Your task to perform on an android device: Go to Android settings Image 0: 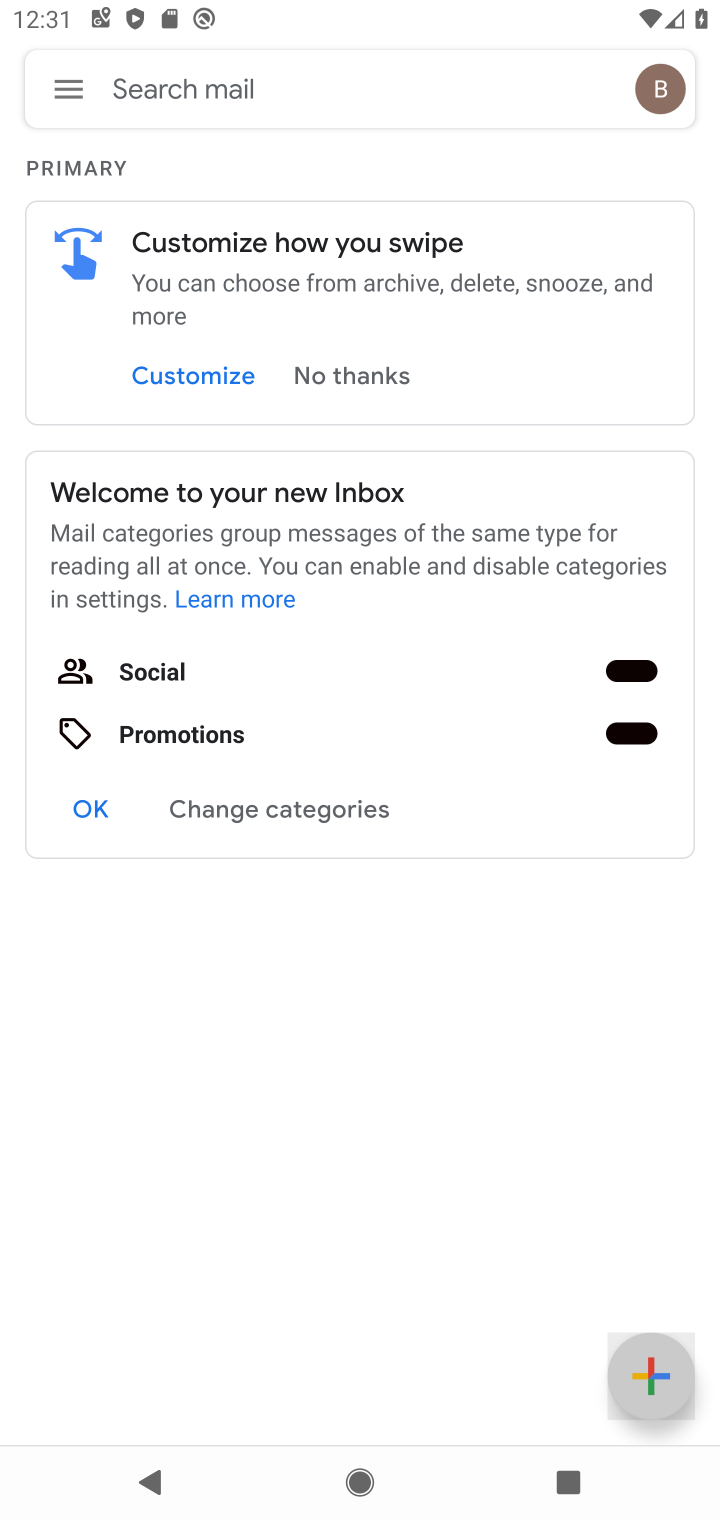
Step 0: press back button
Your task to perform on an android device: Go to Android settings Image 1: 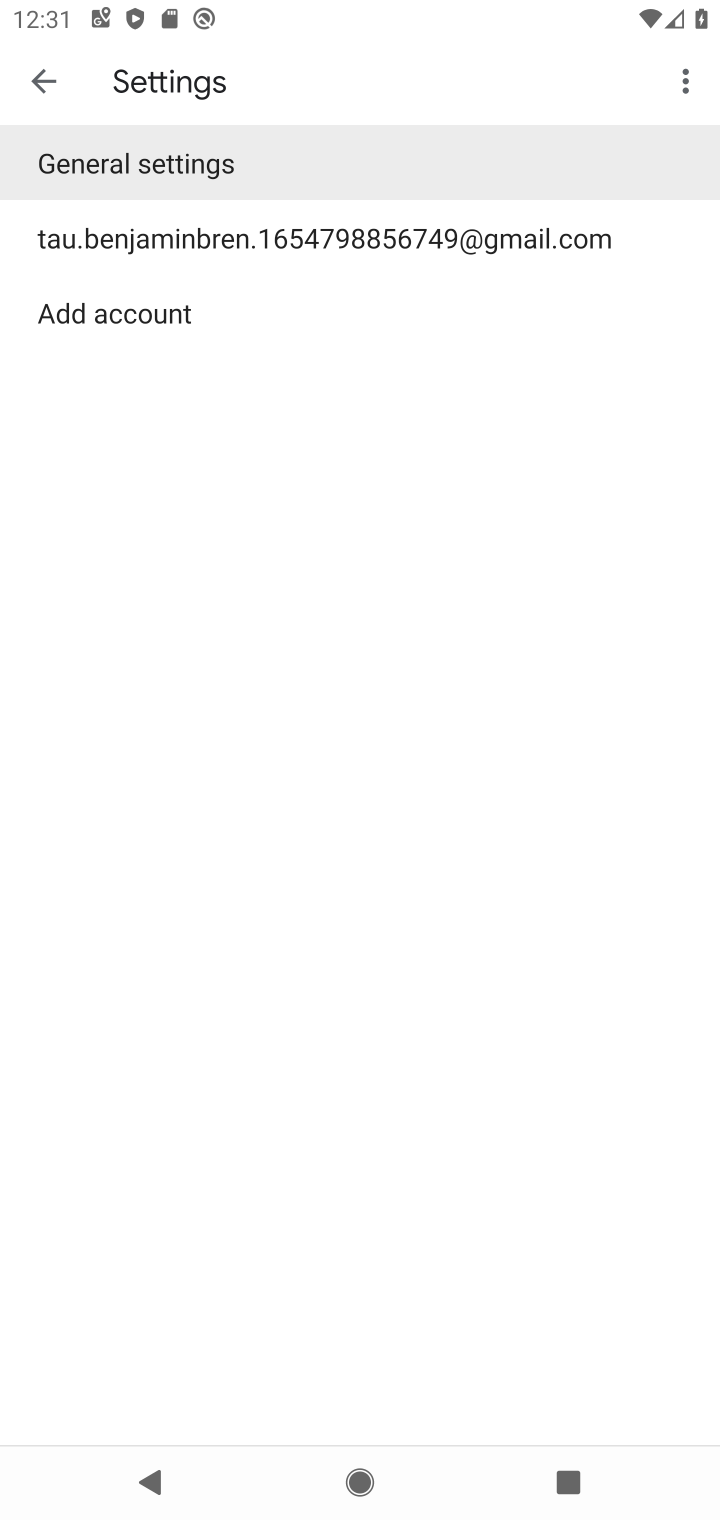
Step 1: press back button
Your task to perform on an android device: Go to Android settings Image 2: 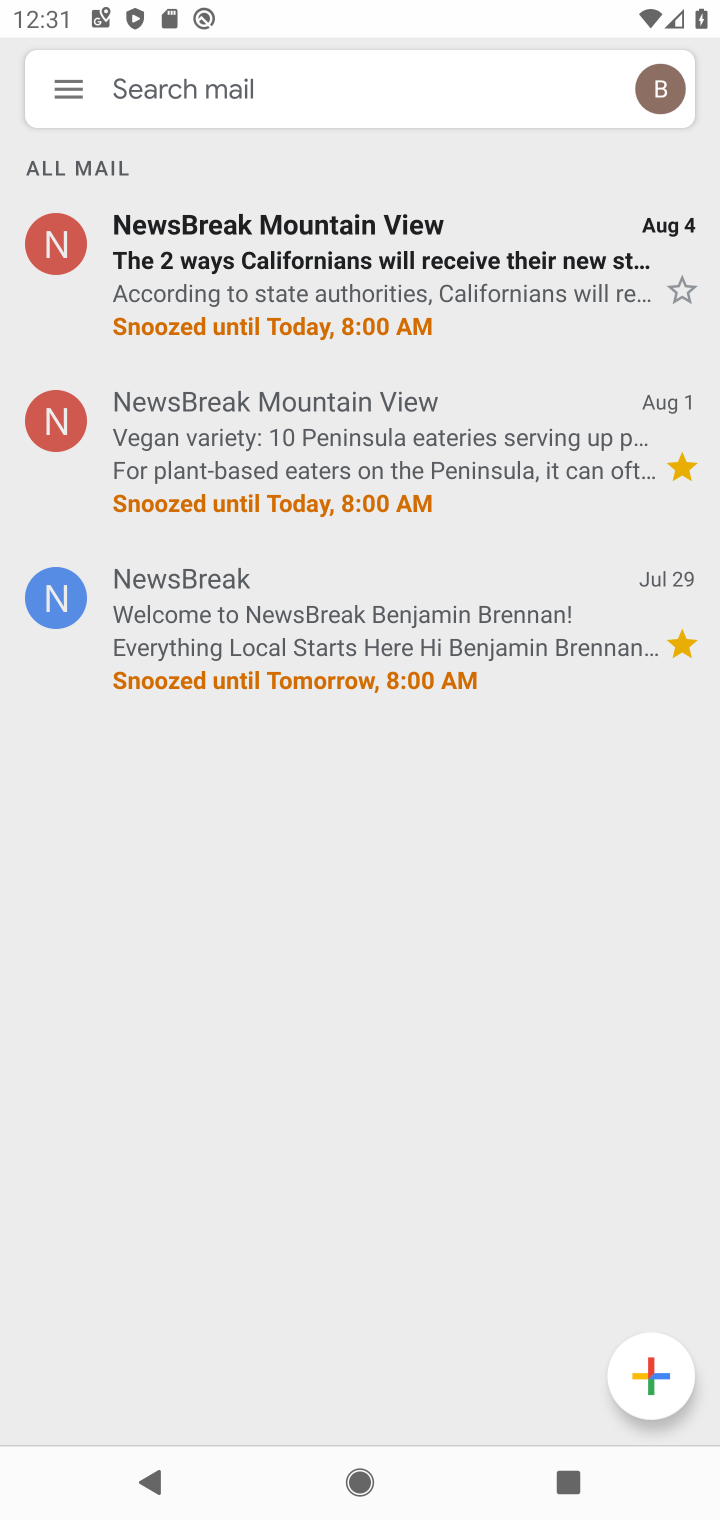
Step 2: press back button
Your task to perform on an android device: Go to Android settings Image 3: 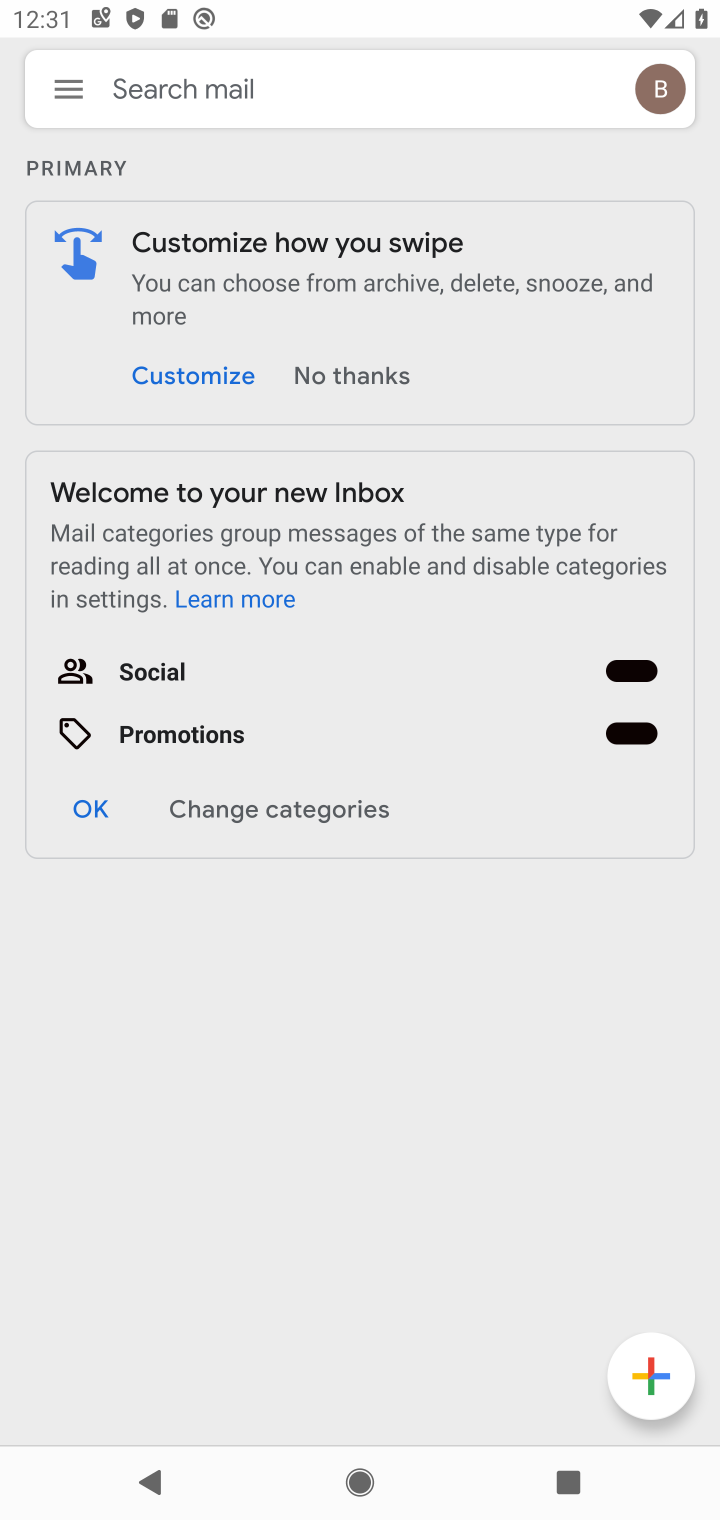
Step 3: press back button
Your task to perform on an android device: Go to Android settings Image 4: 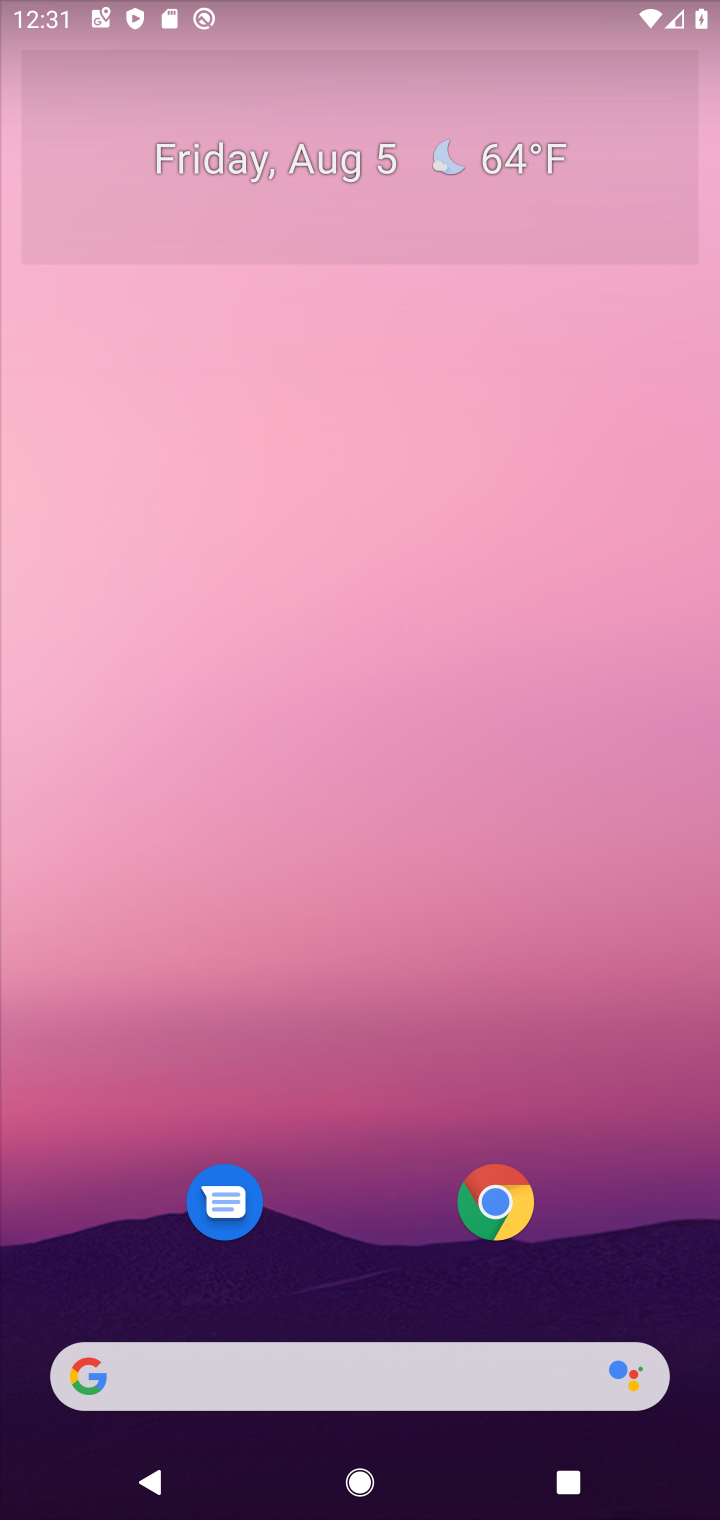
Step 4: drag from (378, 1252) to (505, 2)
Your task to perform on an android device: Go to Android settings Image 5: 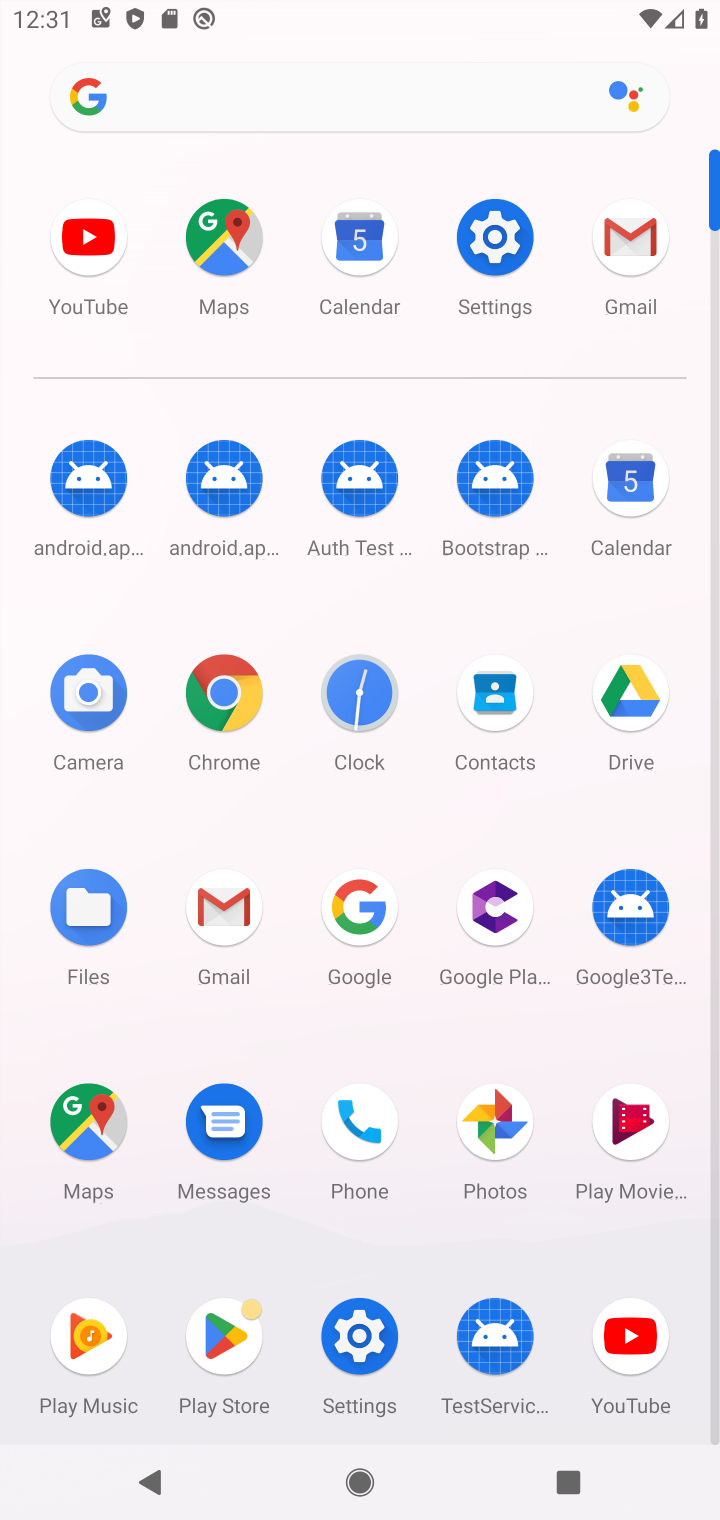
Step 5: click (502, 237)
Your task to perform on an android device: Go to Android settings Image 6: 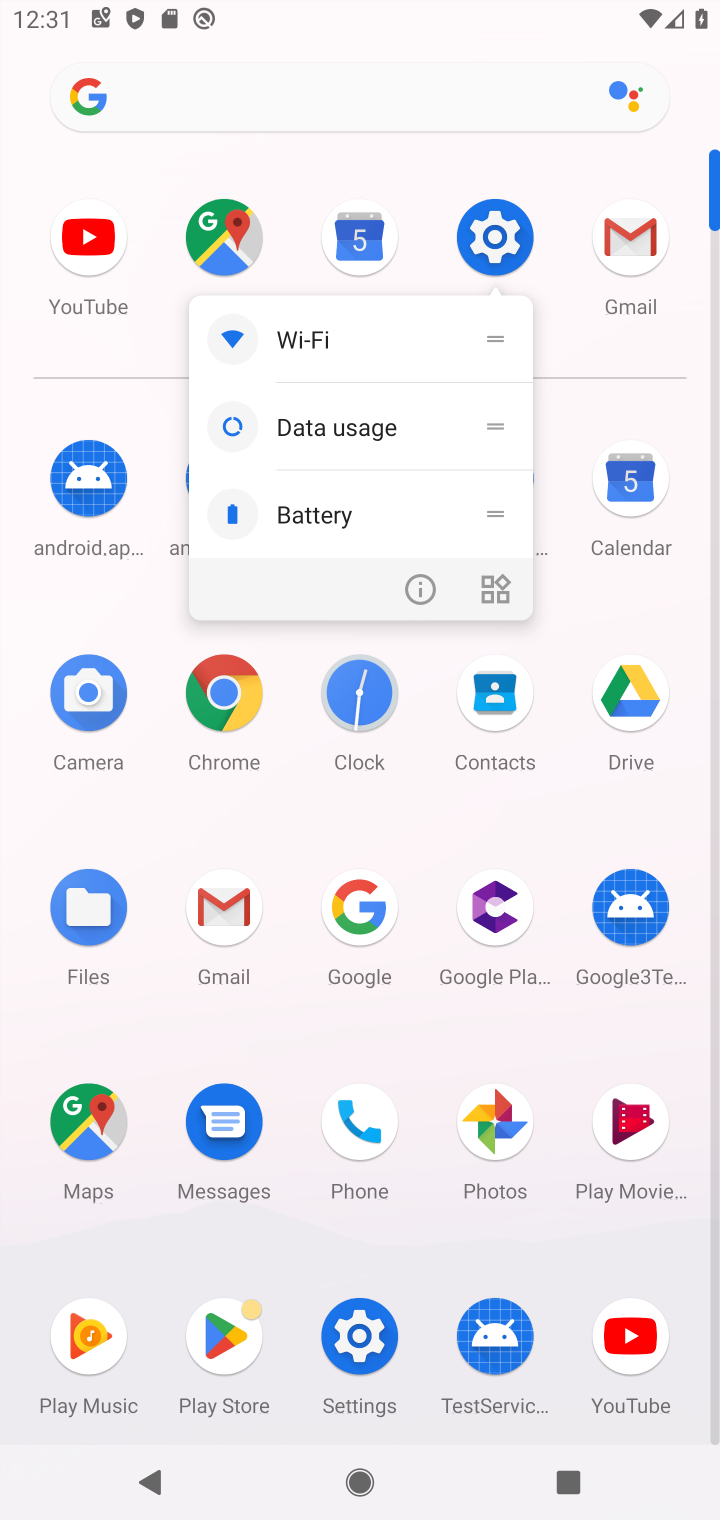
Step 6: click (502, 237)
Your task to perform on an android device: Go to Android settings Image 7: 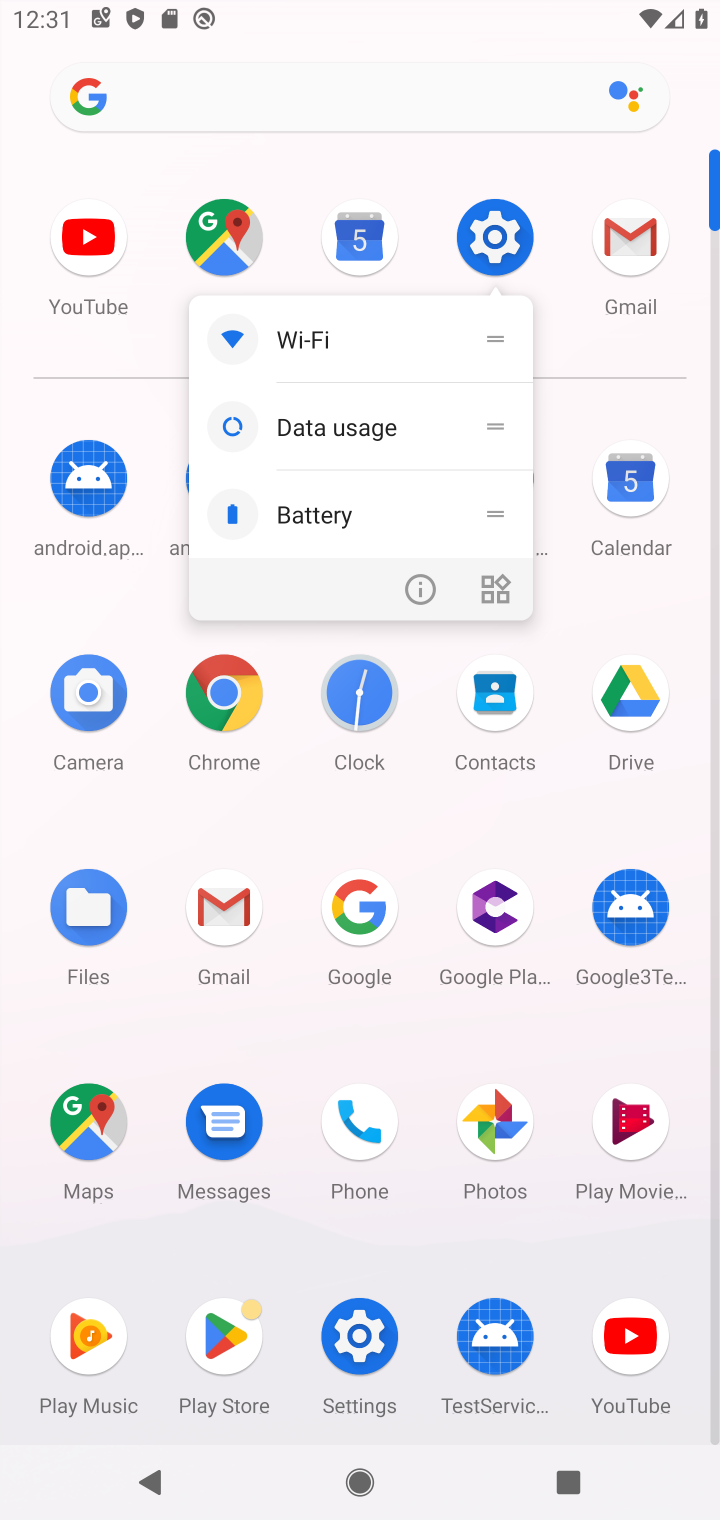
Step 7: click (502, 237)
Your task to perform on an android device: Go to Android settings Image 8: 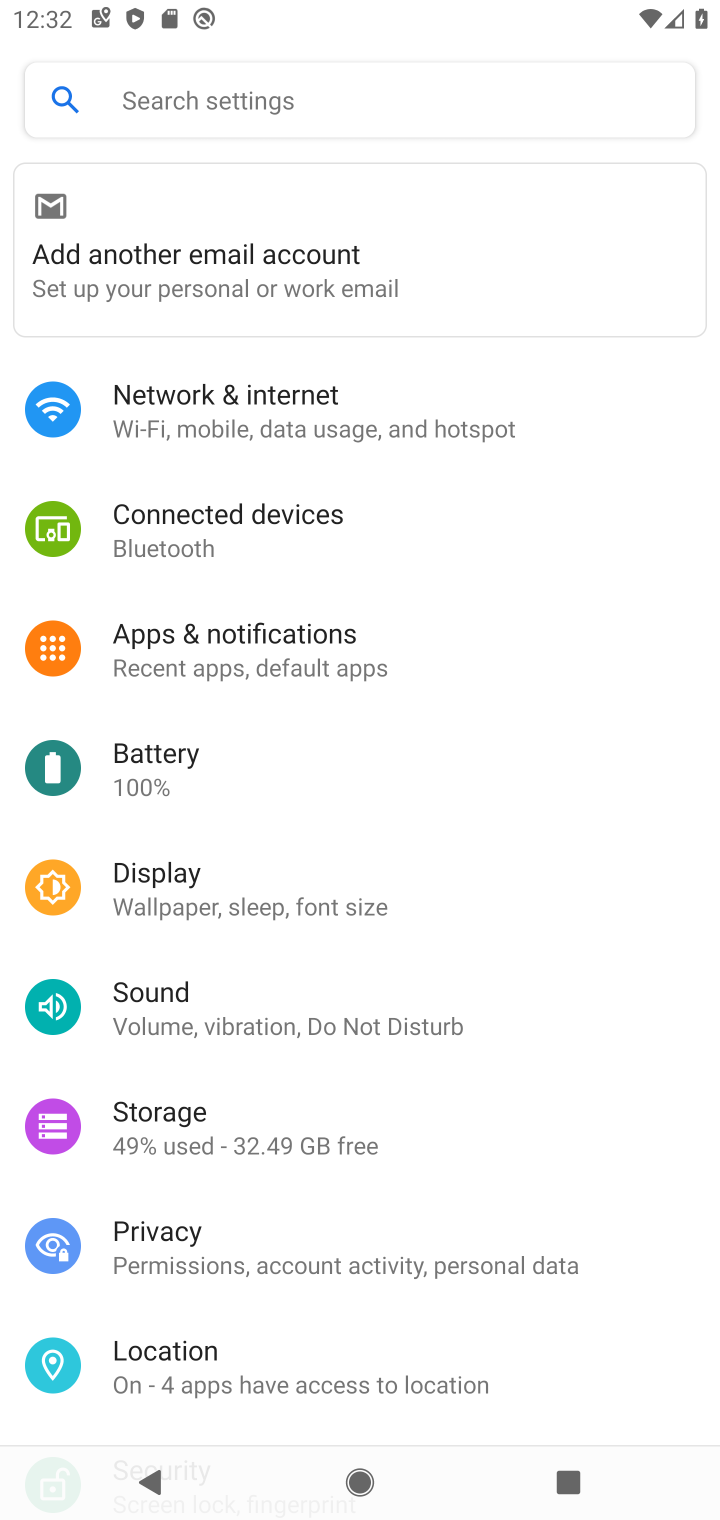
Step 8: drag from (310, 1285) to (484, 75)
Your task to perform on an android device: Go to Android settings Image 9: 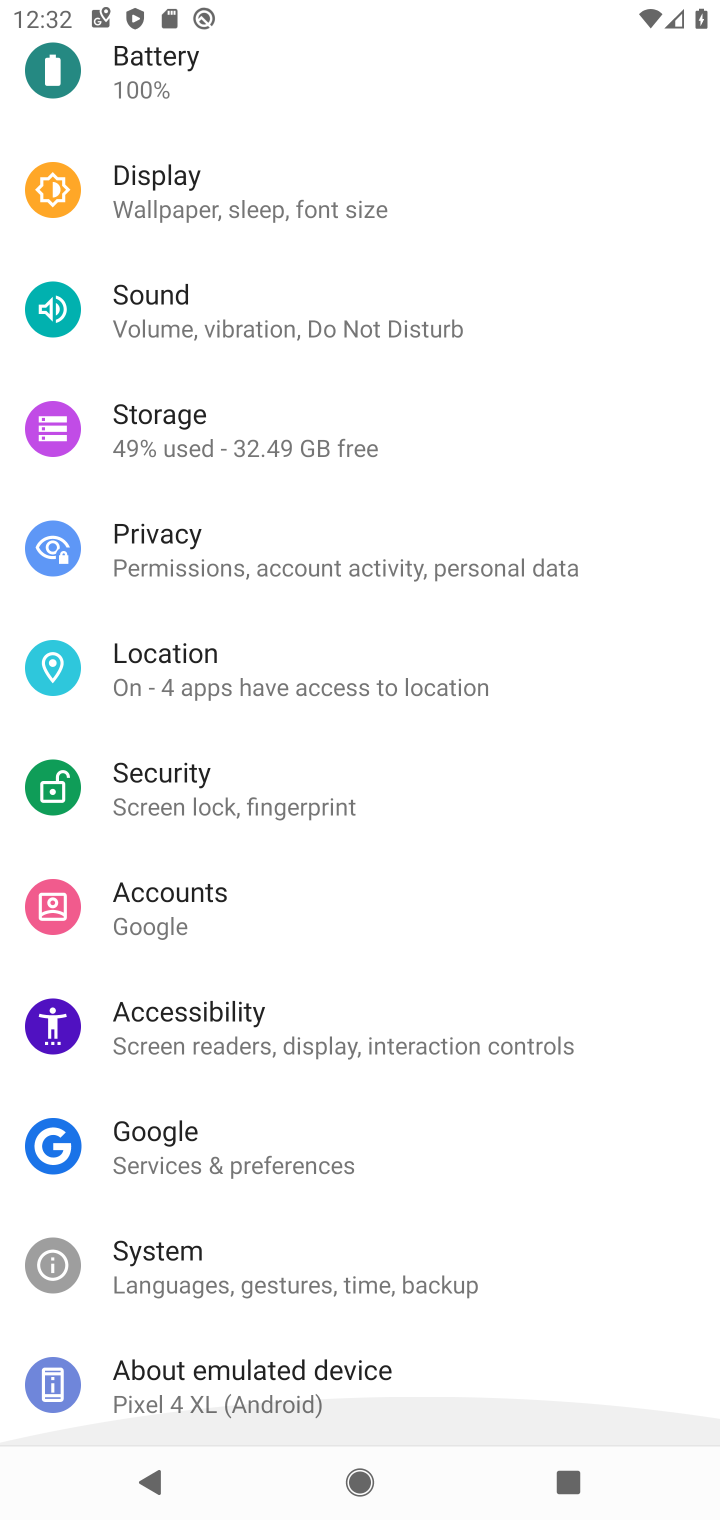
Step 9: drag from (252, 1216) to (468, 19)
Your task to perform on an android device: Go to Android settings Image 10: 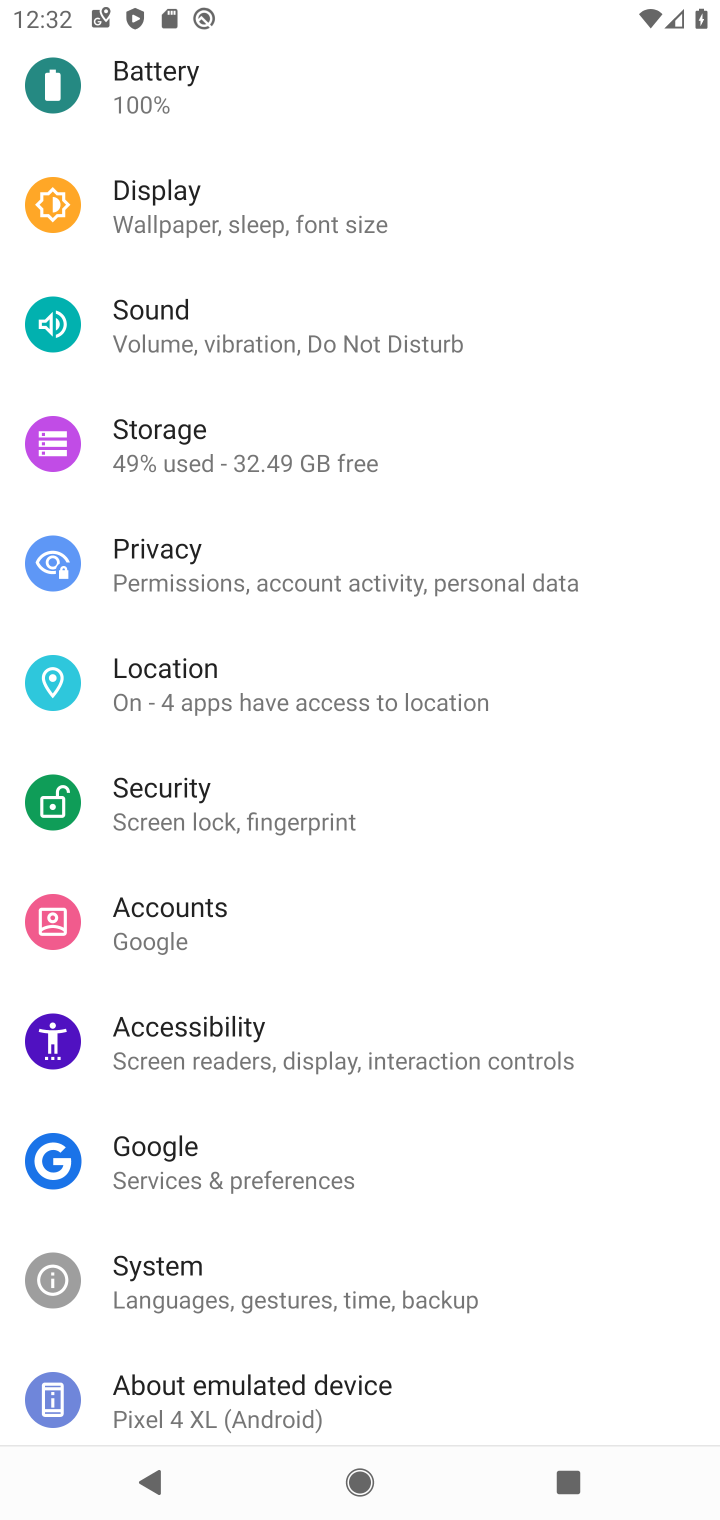
Step 10: click (252, 1386)
Your task to perform on an android device: Go to Android settings Image 11: 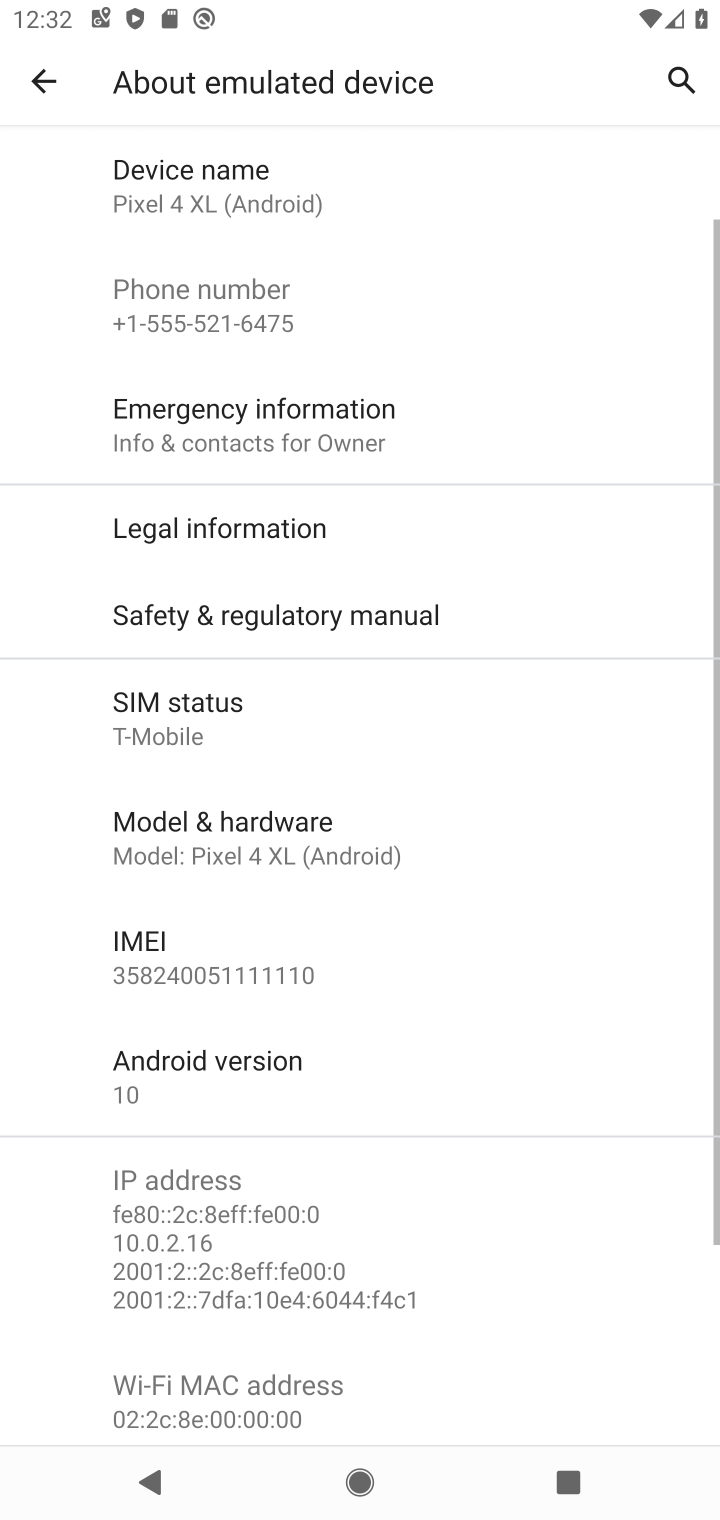
Step 11: task complete